Your task to perform on an android device: Check the weather Image 0: 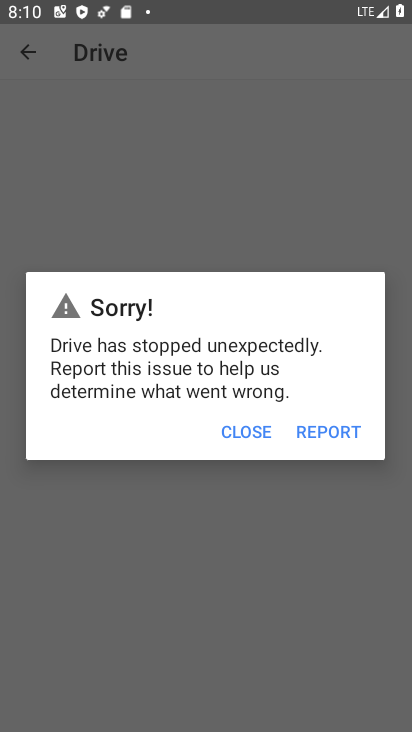
Step 0: press home button
Your task to perform on an android device: Check the weather Image 1: 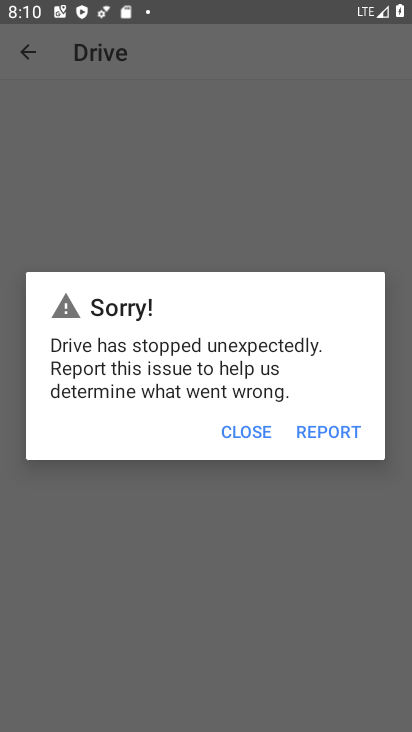
Step 1: press home button
Your task to perform on an android device: Check the weather Image 2: 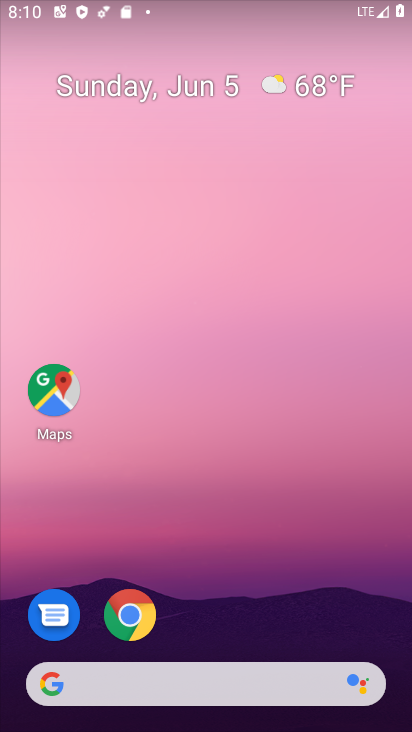
Step 2: click (314, 72)
Your task to perform on an android device: Check the weather Image 3: 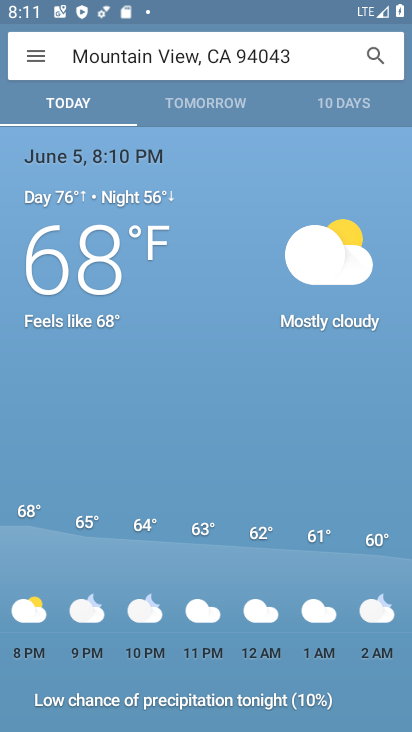
Step 3: task complete